Your task to perform on an android device: turn off improve location accuracy Image 0: 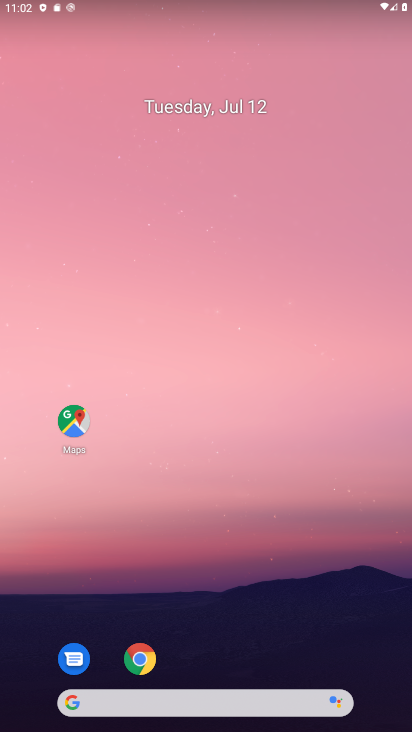
Step 0: drag from (70, 599) to (190, 209)
Your task to perform on an android device: turn off improve location accuracy Image 1: 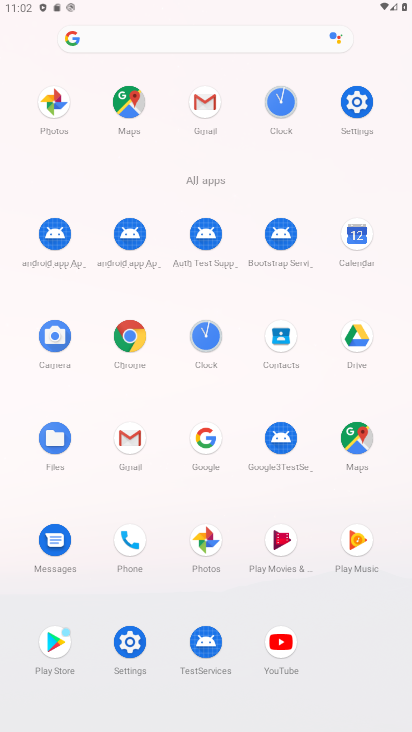
Step 1: click (122, 654)
Your task to perform on an android device: turn off improve location accuracy Image 2: 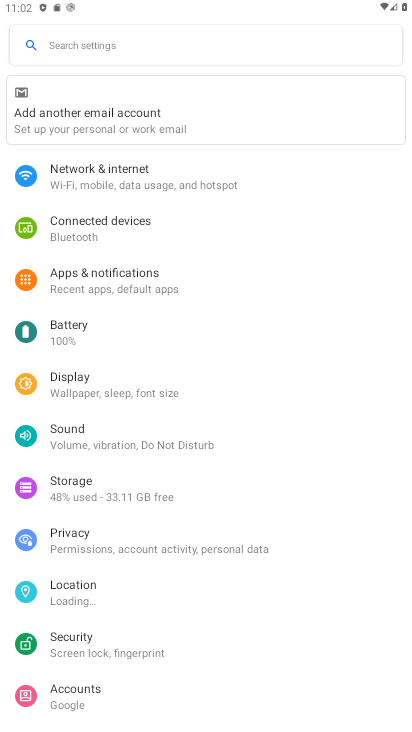
Step 2: click (64, 598)
Your task to perform on an android device: turn off improve location accuracy Image 3: 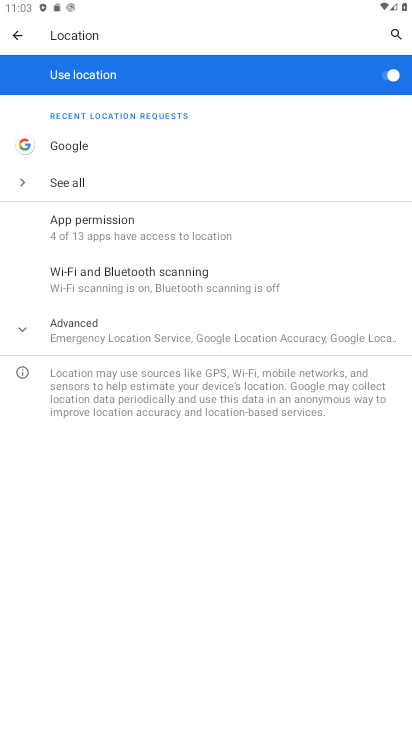
Step 3: click (86, 332)
Your task to perform on an android device: turn off improve location accuracy Image 4: 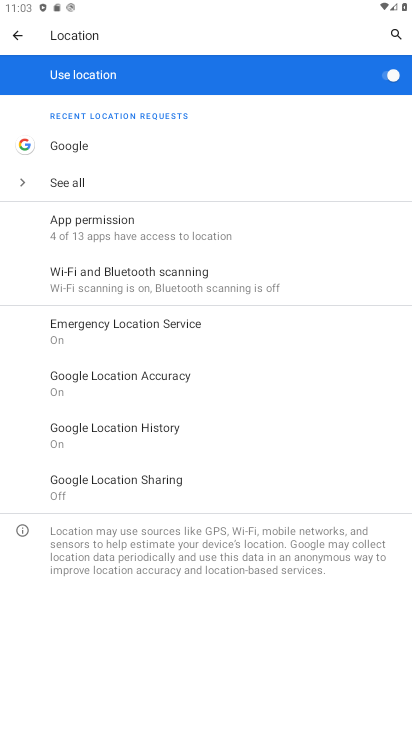
Step 4: click (123, 385)
Your task to perform on an android device: turn off improve location accuracy Image 5: 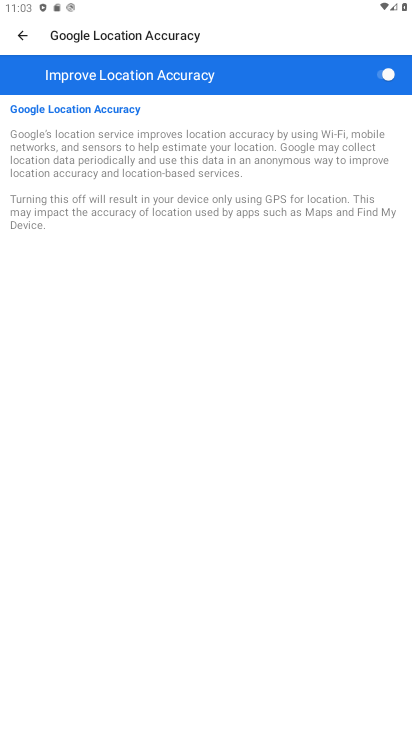
Step 5: click (386, 74)
Your task to perform on an android device: turn off improve location accuracy Image 6: 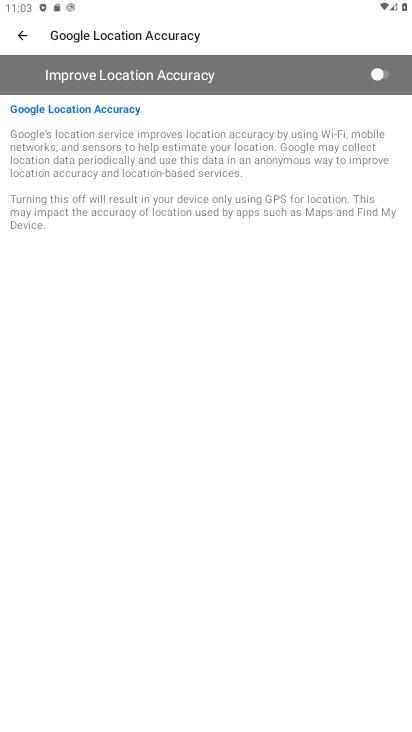
Step 6: task complete